Your task to perform on an android device: change the clock style Image 0: 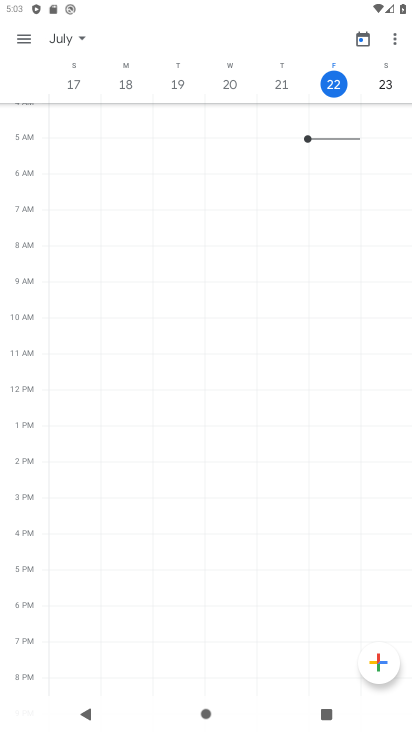
Step 0: press home button
Your task to perform on an android device: change the clock style Image 1: 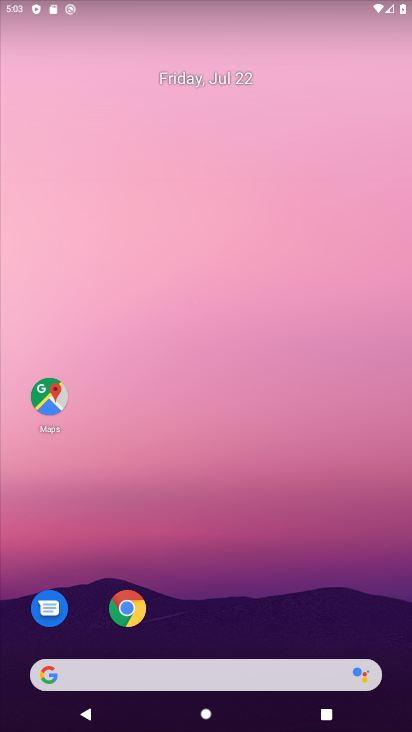
Step 1: drag from (239, 639) to (389, 222)
Your task to perform on an android device: change the clock style Image 2: 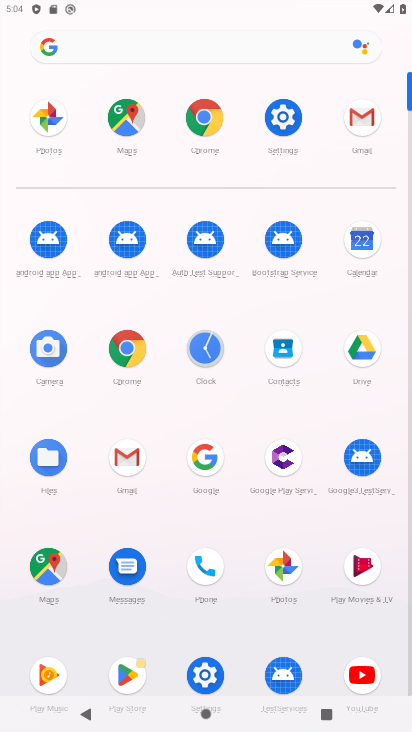
Step 2: click (212, 347)
Your task to perform on an android device: change the clock style Image 3: 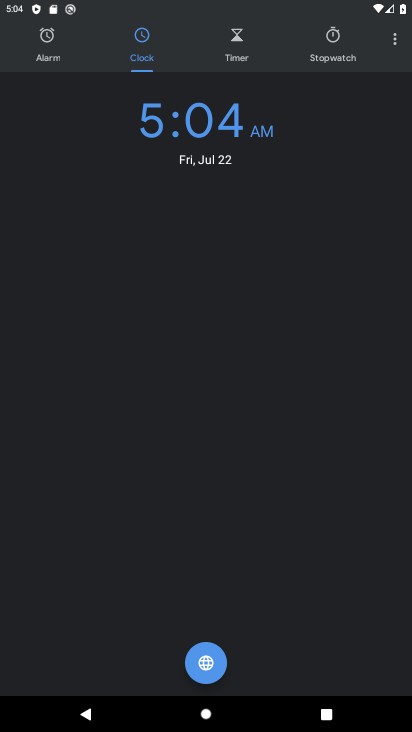
Step 3: click (374, 101)
Your task to perform on an android device: change the clock style Image 4: 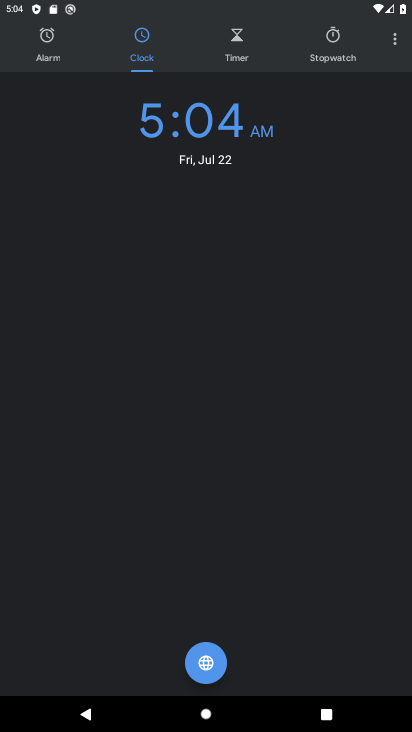
Step 4: click (399, 55)
Your task to perform on an android device: change the clock style Image 5: 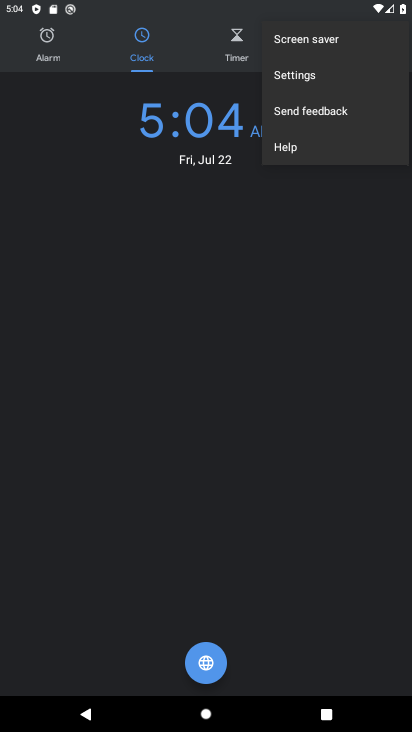
Step 5: click (309, 84)
Your task to perform on an android device: change the clock style Image 6: 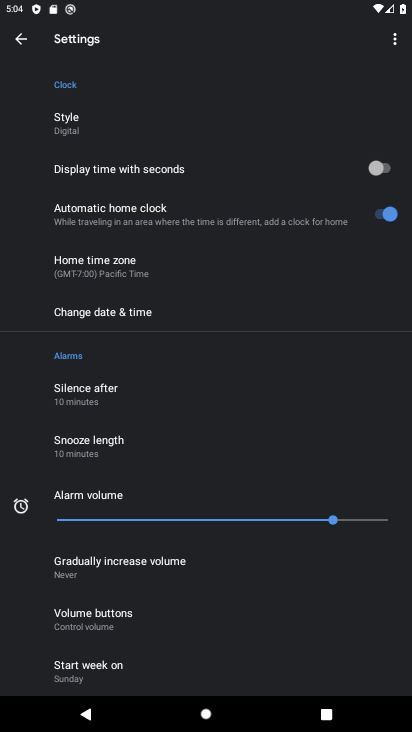
Step 6: click (82, 131)
Your task to perform on an android device: change the clock style Image 7: 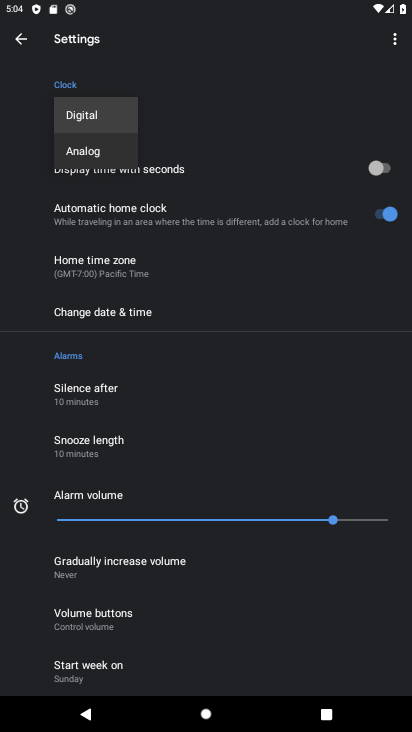
Step 7: click (100, 161)
Your task to perform on an android device: change the clock style Image 8: 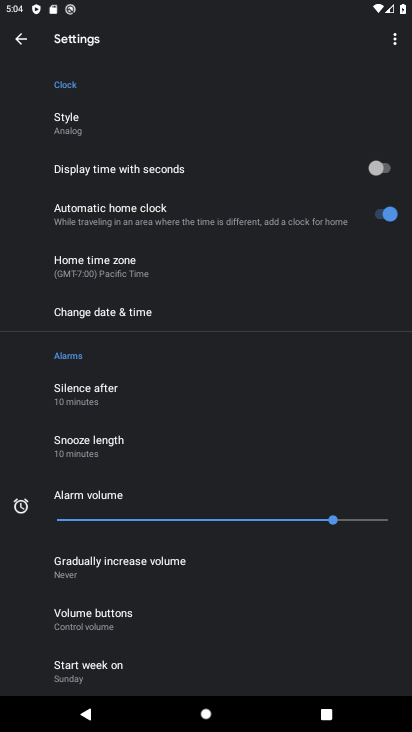
Step 8: click (82, 141)
Your task to perform on an android device: change the clock style Image 9: 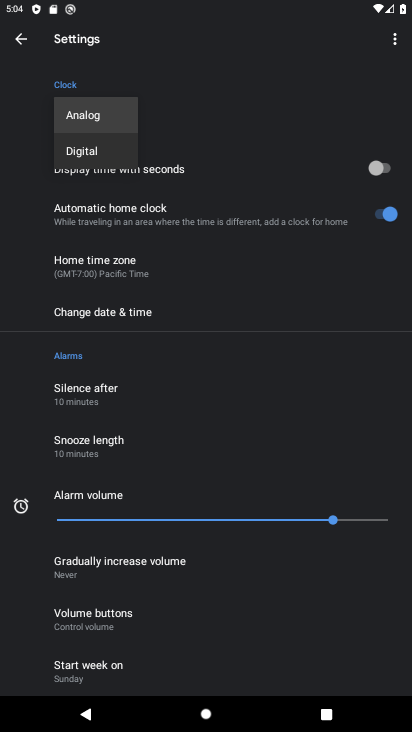
Step 9: click (88, 148)
Your task to perform on an android device: change the clock style Image 10: 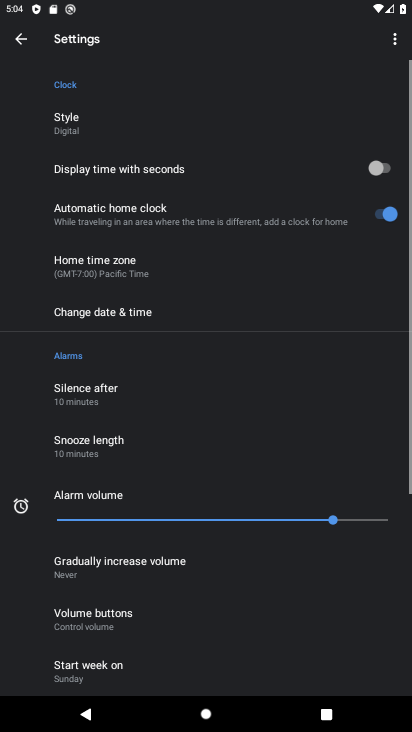
Step 10: task complete